Your task to perform on an android device: Go to CNN.com Image 0: 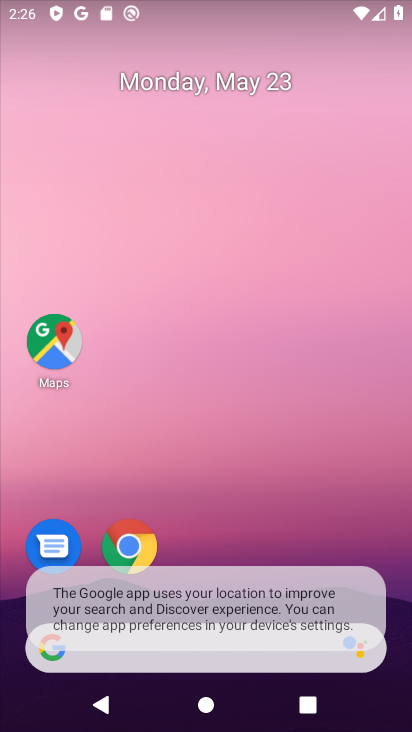
Step 0: drag from (339, 492) to (266, 140)
Your task to perform on an android device: Go to CNN.com Image 1: 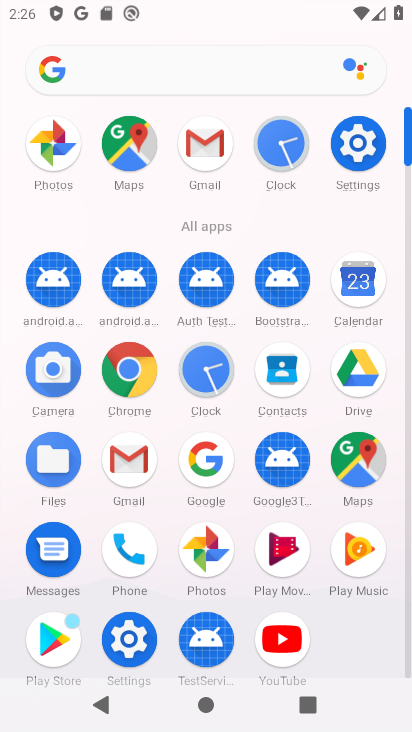
Step 1: click (112, 355)
Your task to perform on an android device: Go to CNN.com Image 2: 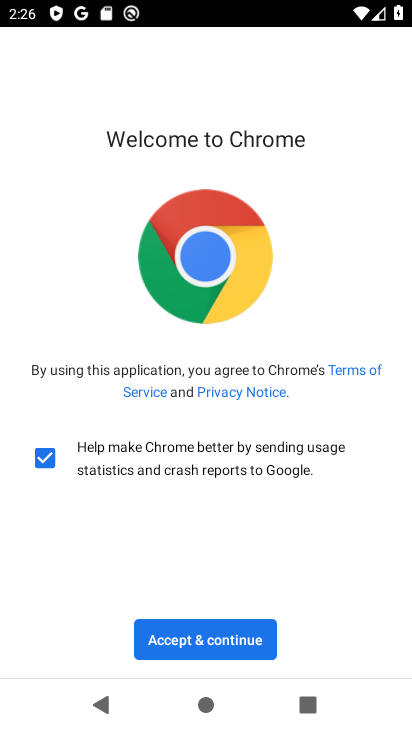
Step 2: click (250, 629)
Your task to perform on an android device: Go to CNN.com Image 3: 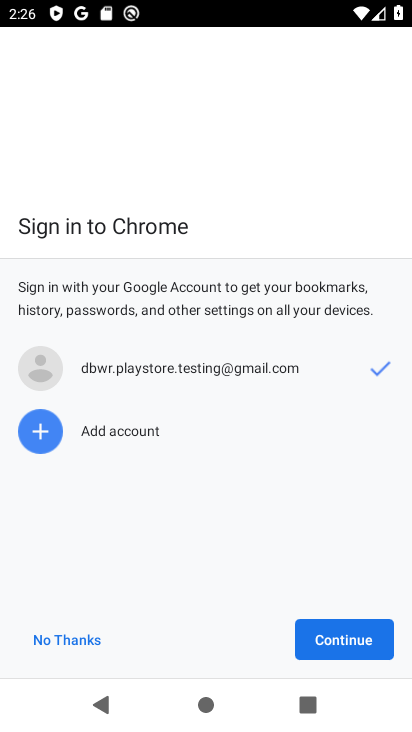
Step 3: click (388, 626)
Your task to perform on an android device: Go to CNN.com Image 4: 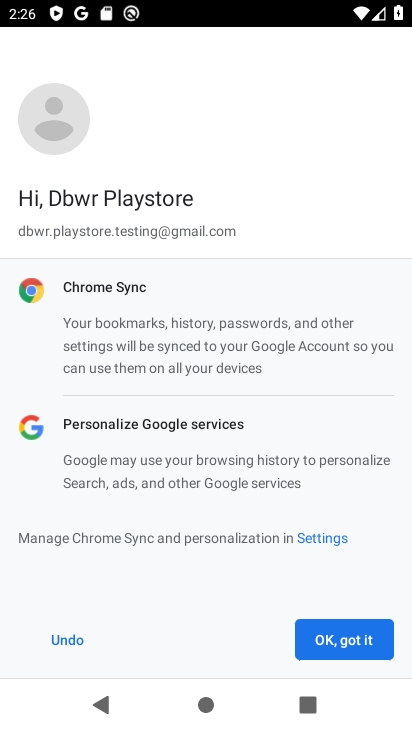
Step 4: click (366, 640)
Your task to perform on an android device: Go to CNN.com Image 5: 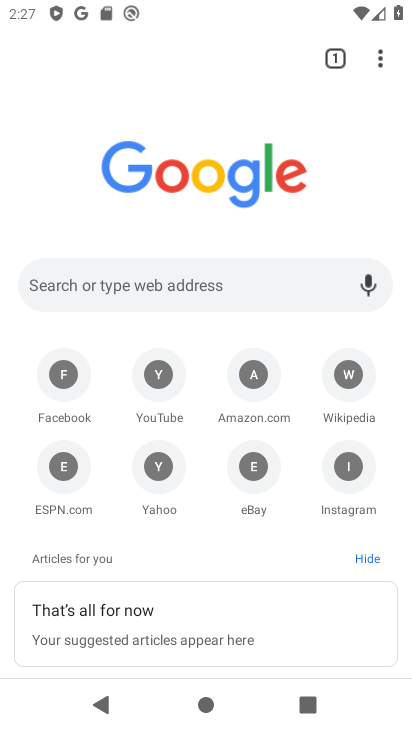
Step 5: click (203, 288)
Your task to perform on an android device: Go to CNN.com Image 6: 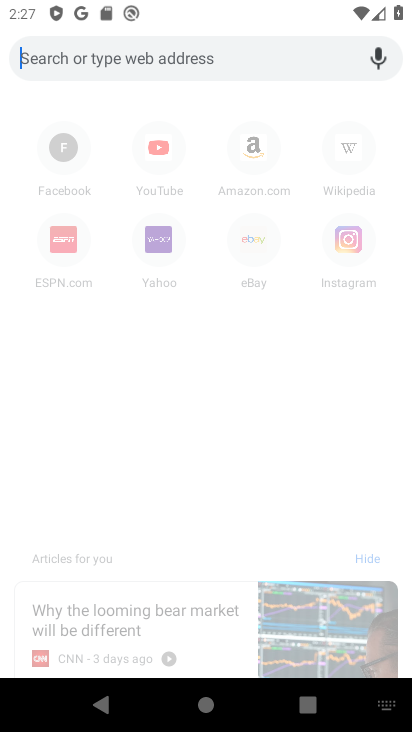
Step 6: type "cnn.com"
Your task to perform on an android device: Go to CNN.com Image 7: 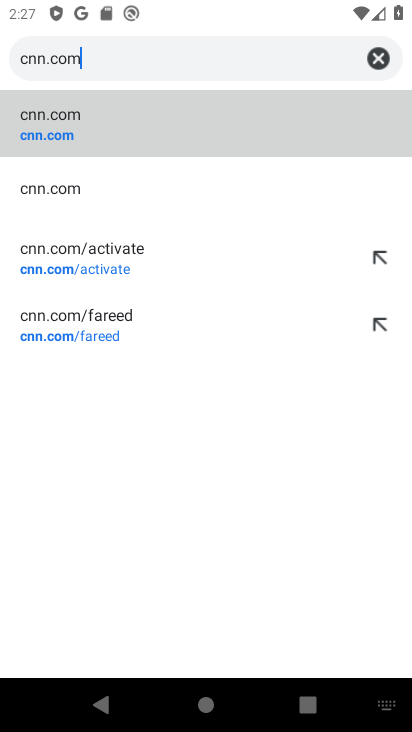
Step 7: click (92, 135)
Your task to perform on an android device: Go to CNN.com Image 8: 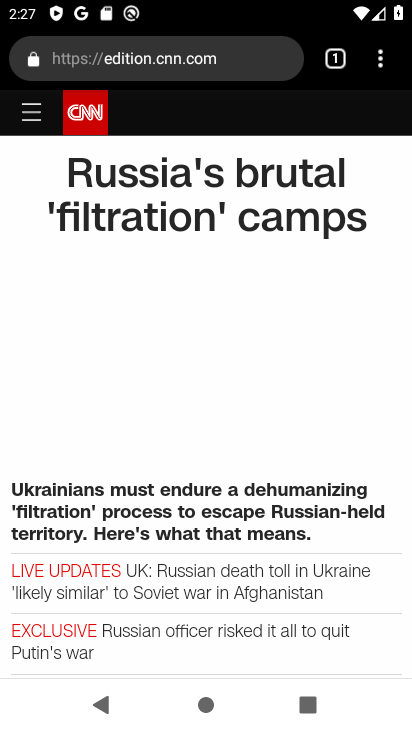
Step 8: task complete